Your task to perform on an android device: toggle sleep mode Image 0: 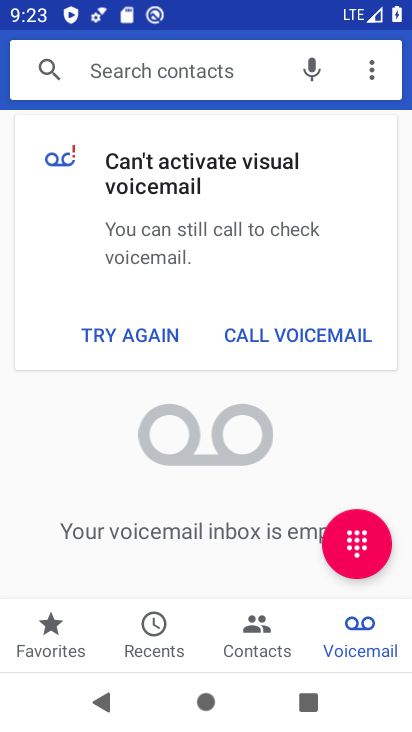
Step 0: press home button
Your task to perform on an android device: toggle sleep mode Image 1: 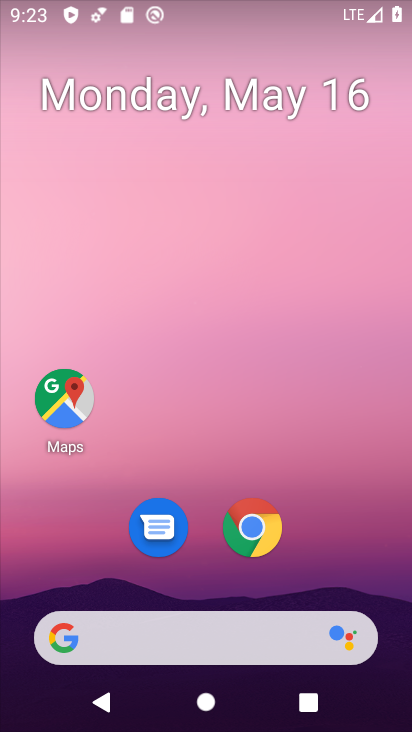
Step 1: drag from (353, 587) to (320, 21)
Your task to perform on an android device: toggle sleep mode Image 2: 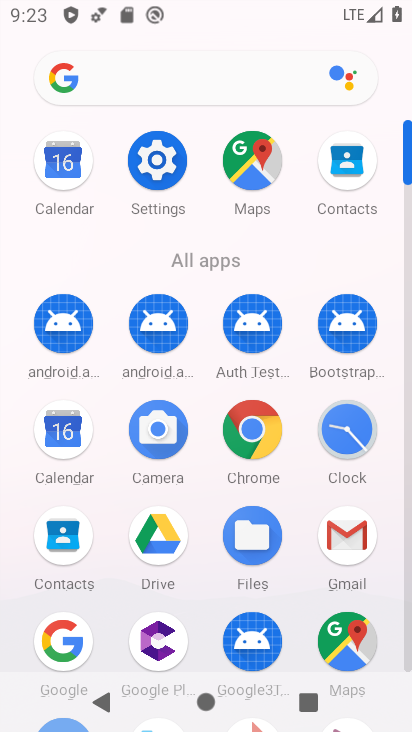
Step 2: click (159, 171)
Your task to perform on an android device: toggle sleep mode Image 3: 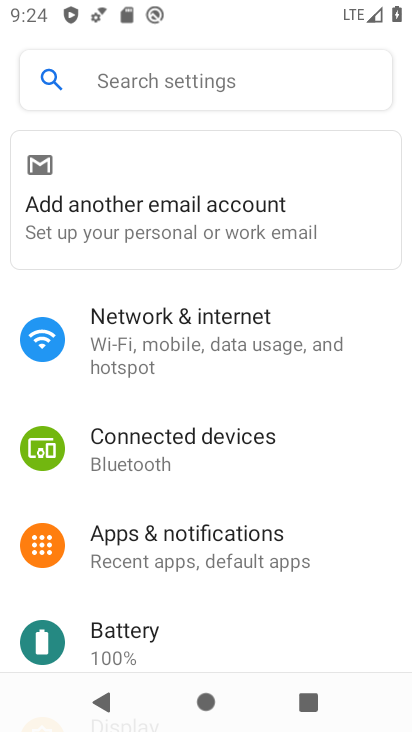
Step 3: drag from (308, 574) to (315, 231)
Your task to perform on an android device: toggle sleep mode Image 4: 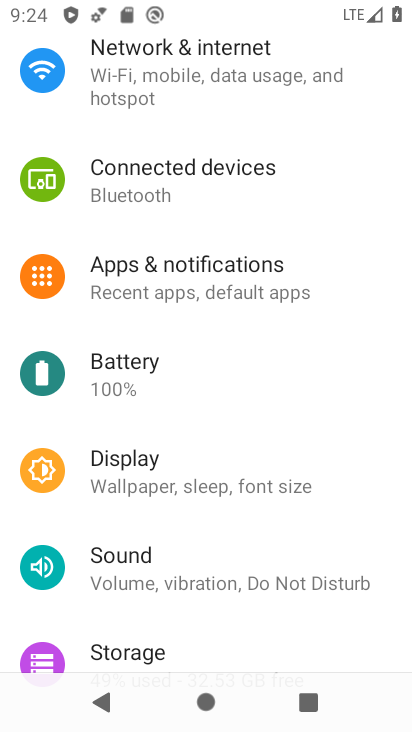
Step 4: click (138, 466)
Your task to perform on an android device: toggle sleep mode Image 5: 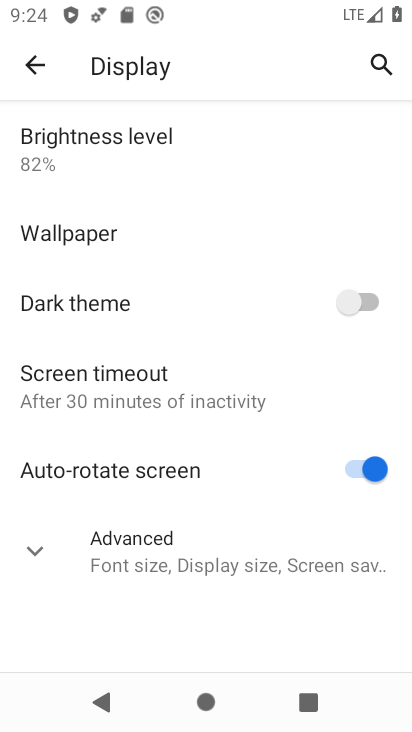
Step 5: click (36, 557)
Your task to perform on an android device: toggle sleep mode Image 6: 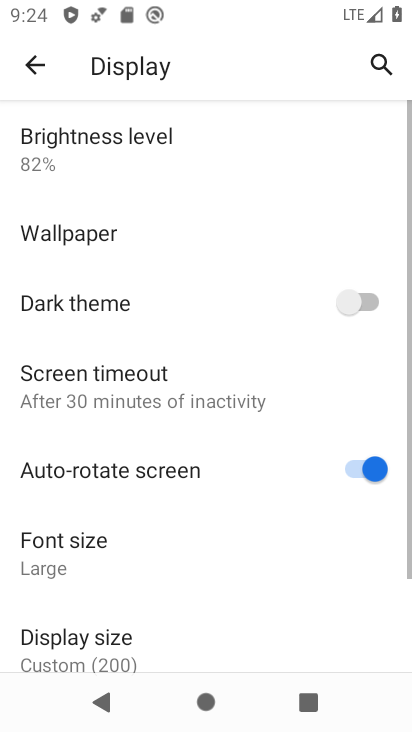
Step 6: task complete